Your task to perform on an android device: turn off picture-in-picture Image 0: 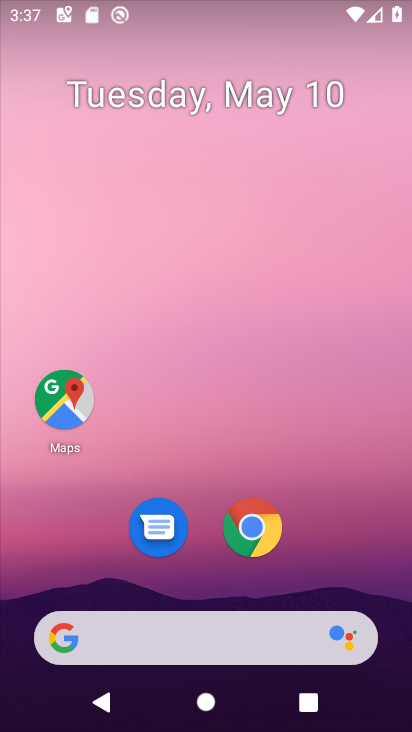
Step 0: click (250, 517)
Your task to perform on an android device: turn off picture-in-picture Image 1: 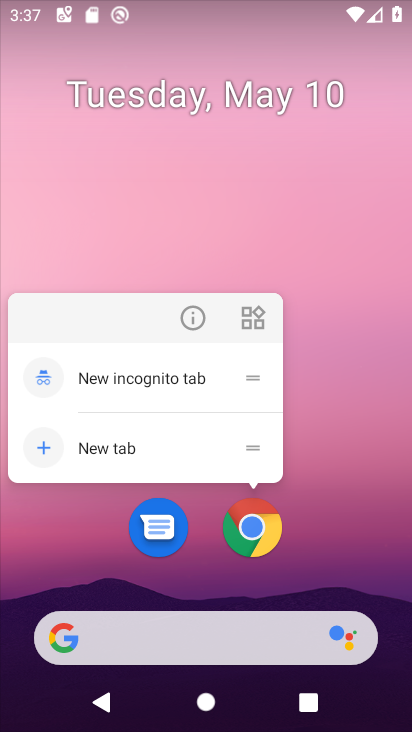
Step 1: click (186, 321)
Your task to perform on an android device: turn off picture-in-picture Image 2: 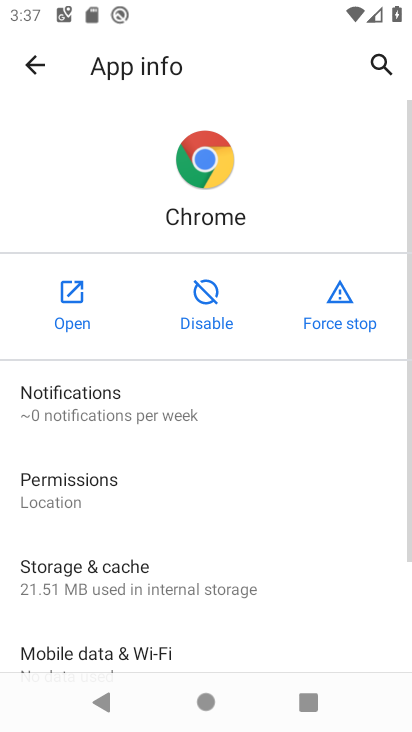
Step 2: drag from (259, 619) to (230, 392)
Your task to perform on an android device: turn off picture-in-picture Image 3: 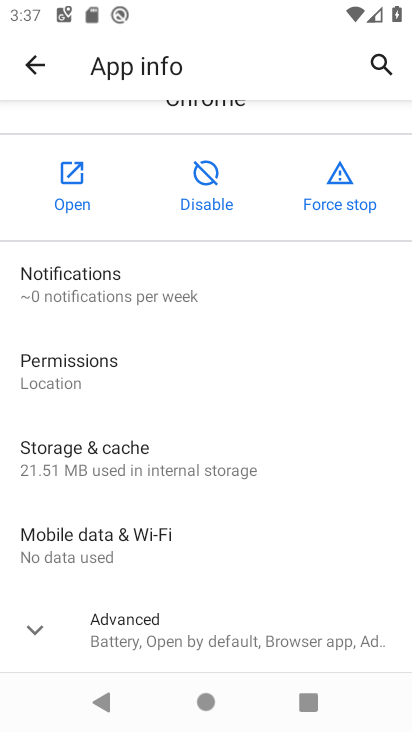
Step 3: drag from (248, 616) to (232, 374)
Your task to perform on an android device: turn off picture-in-picture Image 4: 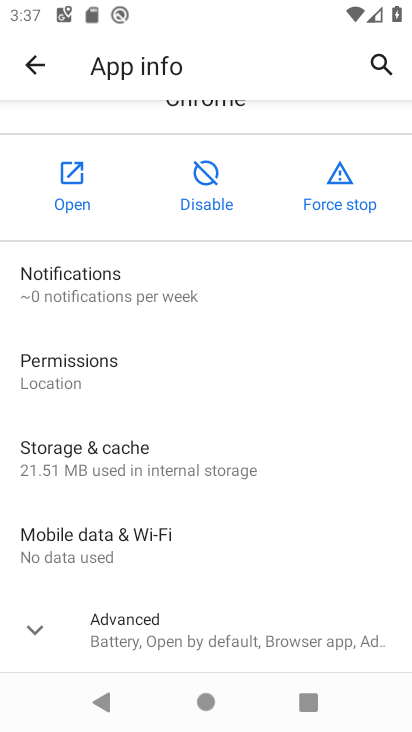
Step 4: click (42, 632)
Your task to perform on an android device: turn off picture-in-picture Image 5: 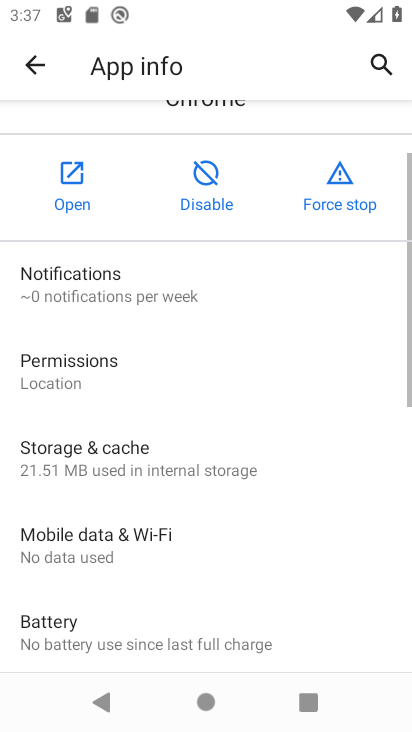
Step 5: drag from (264, 606) to (232, 370)
Your task to perform on an android device: turn off picture-in-picture Image 6: 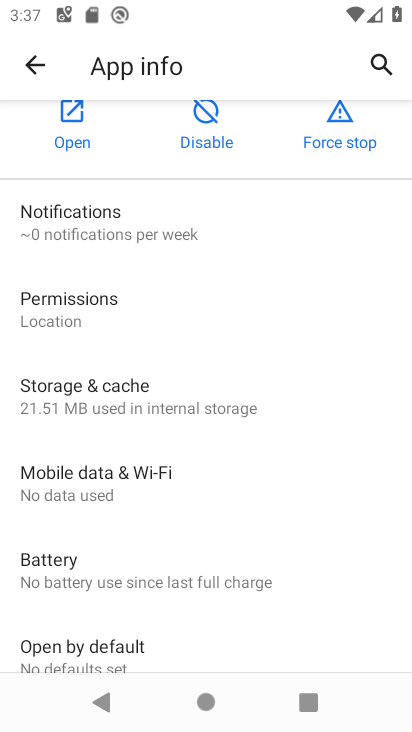
Step 6: drag from (345, 607) to (317, 304)
Your task to perform on an android device: turn off picture-in-picture Image 7: 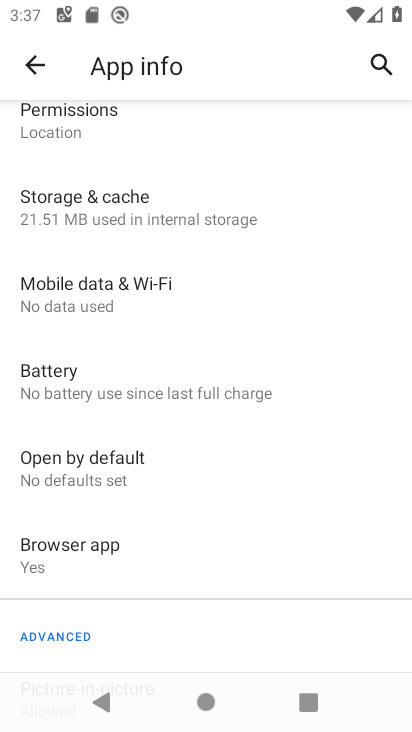
Step 7: drag from (228, 643) to (216, 390)
Your task to perform on an android device: turn off picture-in-picture Image 8: 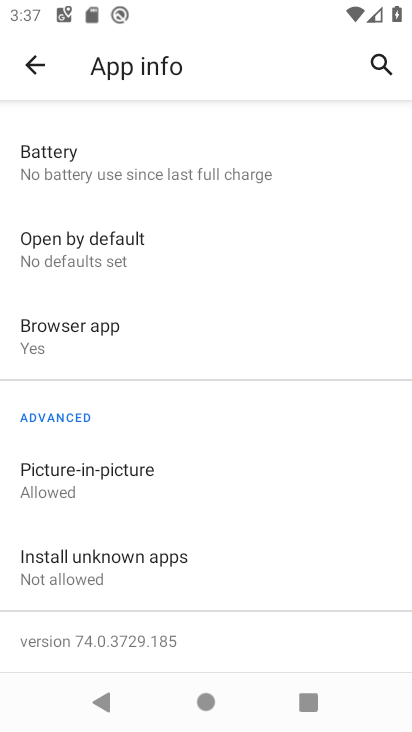
Step 8: click (73, 468)
Your task to perform on an android device: turn off picture-in-picture Image 9: 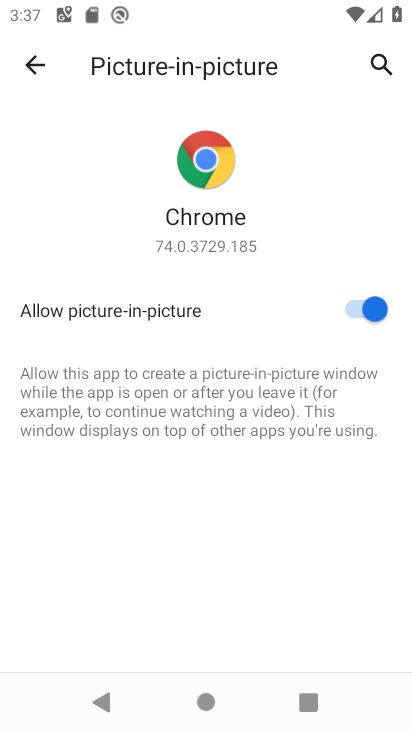
Step 9: click (353, 302)
Your task to perform on an android device: turn off picture-in-picture Image 10: 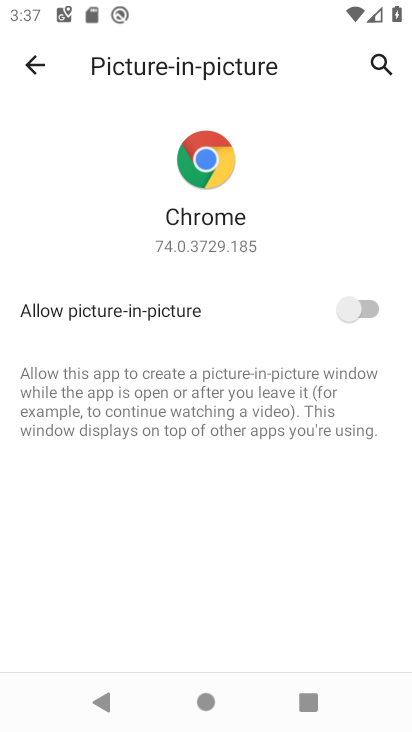
Step 10: task complete